Your task to perform on an android device: Open sound settings Image 0: 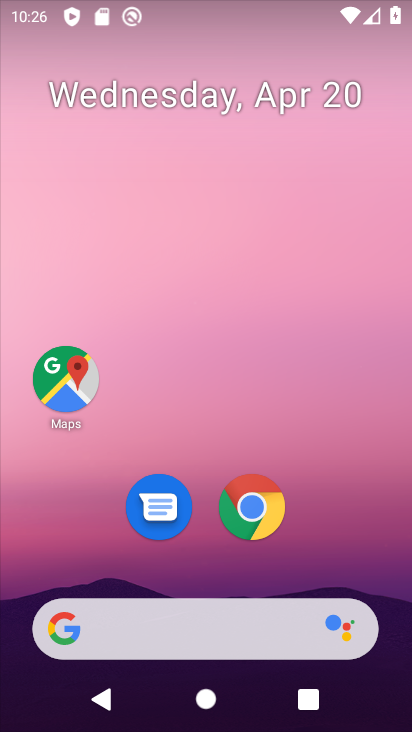
Step 0: drag from (282, 434) to (262, 133)
Your task to perform on an android device: Open sound settings Image 1: 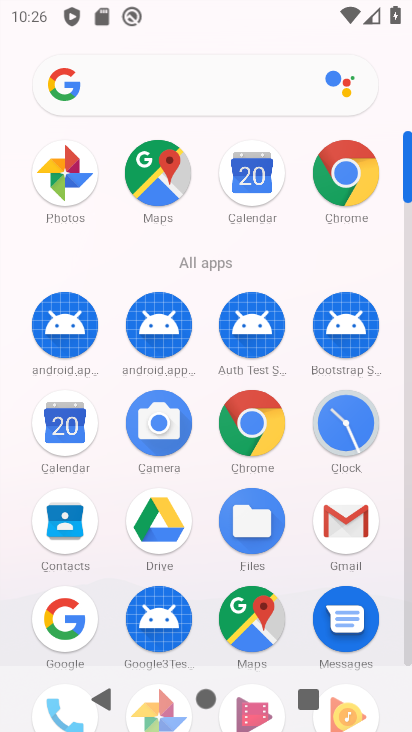
Step 1: click (266, 285)
Your task to perform on an android device: Open sound settings Image 2: 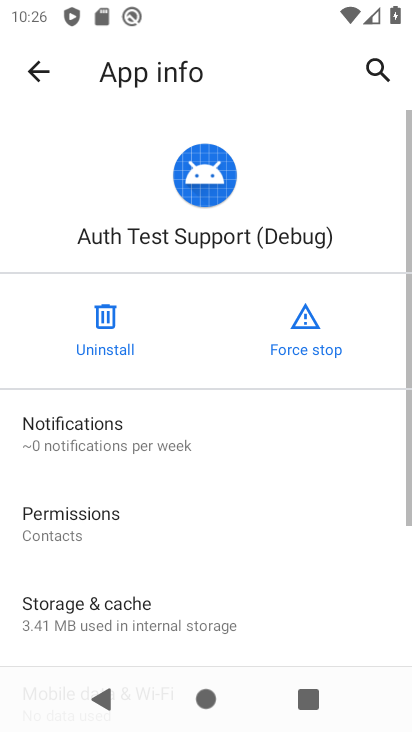
Step 2: task complete